Your task to perform on an android device: Do I have any events this weekend? Image 0: 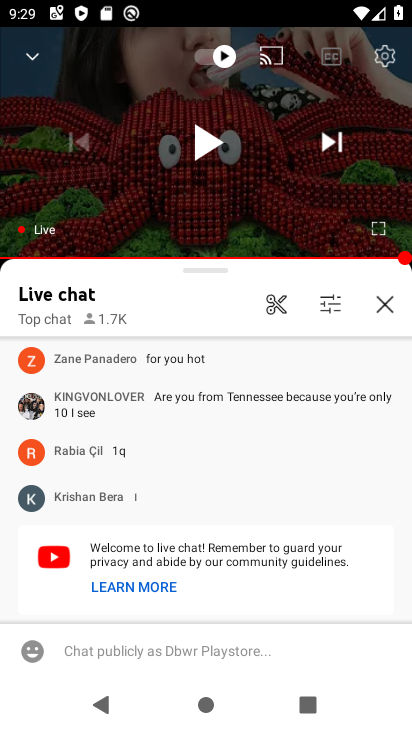
Step 0: press home button
Your task to perform on an android device: Do I have any events this weekend? Image 1: 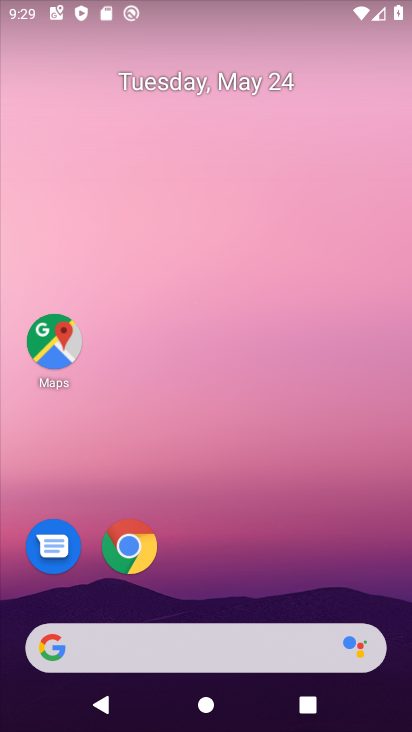
Step 1: drag from (234, 555) to (265, 47)
Your task to perform on an android device: Do I have any events this weekend? Image 2: 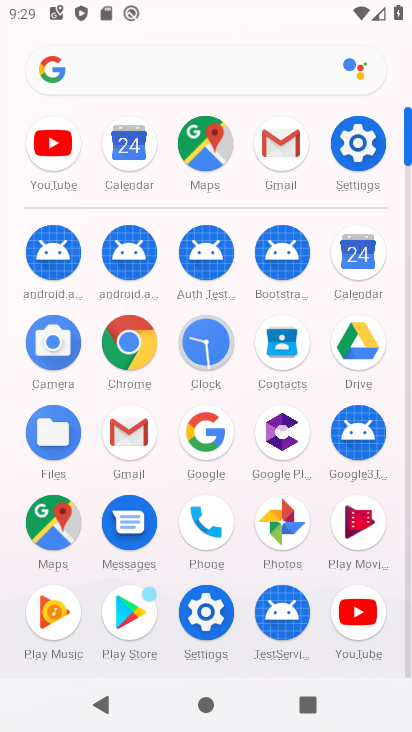
Step 2: click (356, 244)
Your task to perform on an android device: Do I have any events this weekend? Image 3: 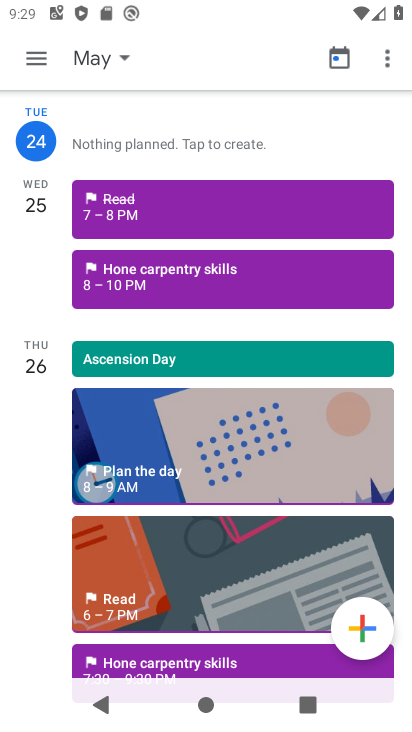
Step 3: task complete